Your task to perform on an android device: turn on data saver in the chrome app Image 0: 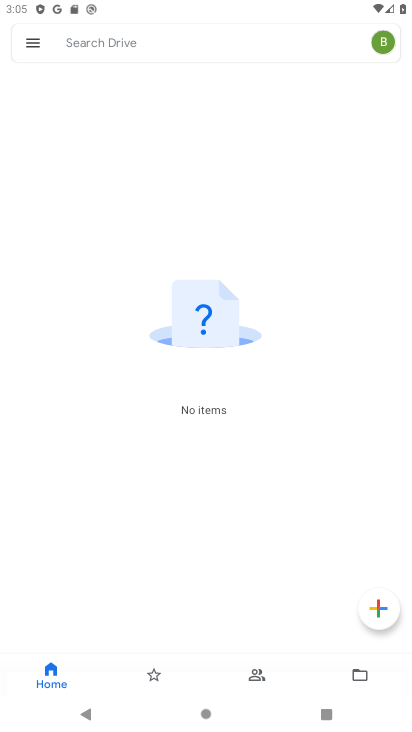
Step 0: press home button
Your task to perform on an android device: turn on data saver in the chrome app Image 1: 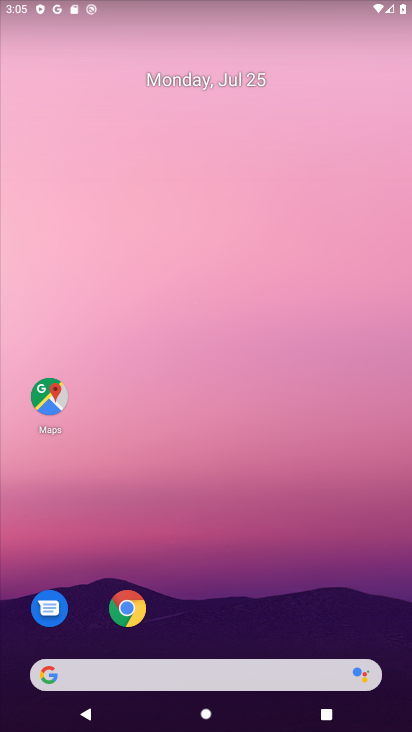
Step 1: drag from (98, 723) to (265, 75)
Your task to perform on an android device: turn on data saver in the chrome app Image 2: 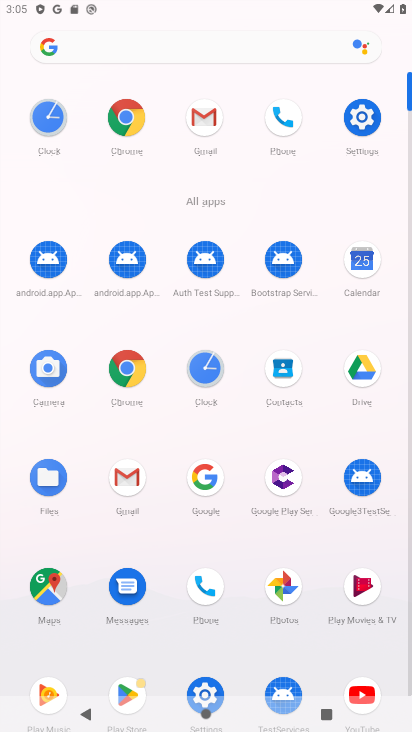
Step 2: click (122, 120)
Your task to perform on an android device: turn on data saver in the chrome app Image 3: 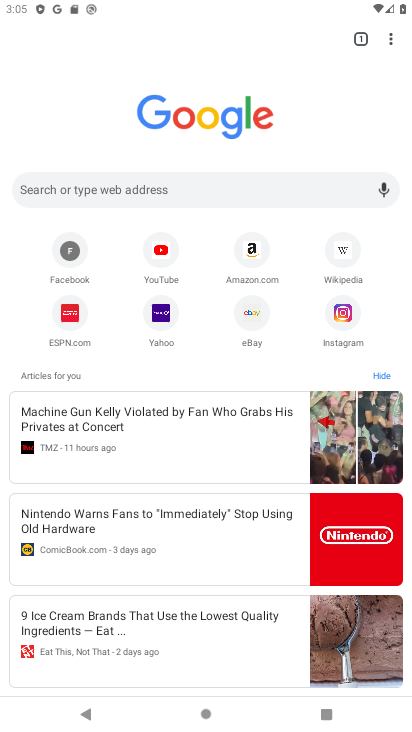
Step 3: click (394, 40)
Your task to perform on an android device: turn on data saver in the chrome app Image 4: 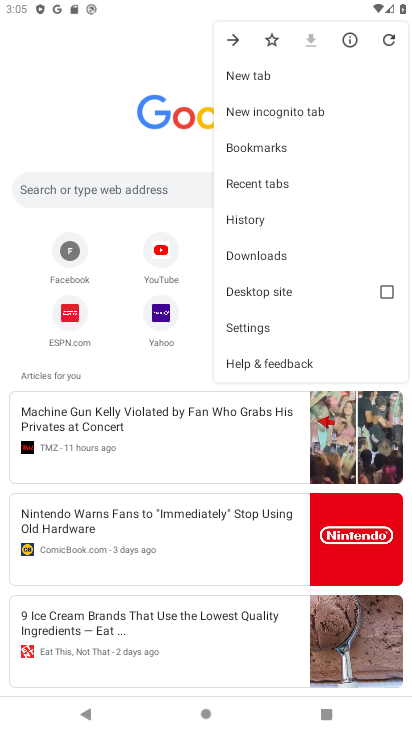
Step 4: click (269, 317)
Your task to perform on an android device: turn on data saver in the chrome app Image 5: 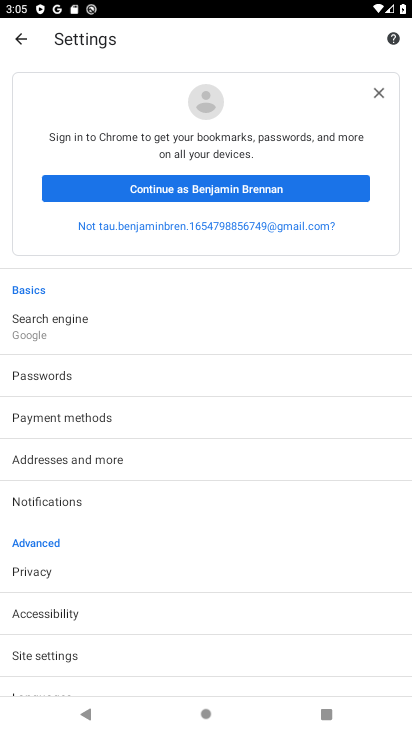
Step 5: drag from (9, 629) to (236, 177)
Your task to perform on an android device: turn on data saver in the chrome app Image 6: 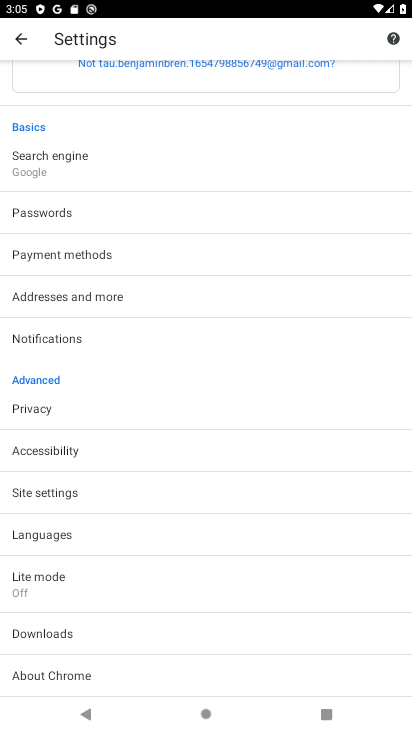
Step 6: click (55, 583)
Your task to perform on an android device: turn on data saver in the chrome app Image 7: 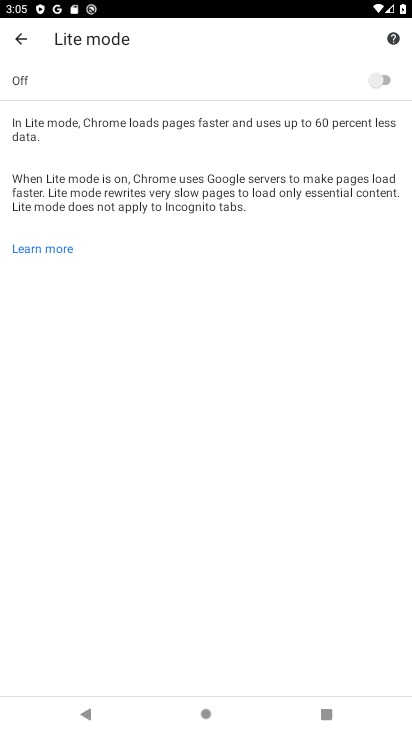
Step 7: click (372, 84)
Your task to perform on an android device: turn on data saver in the chrome app Image 8: 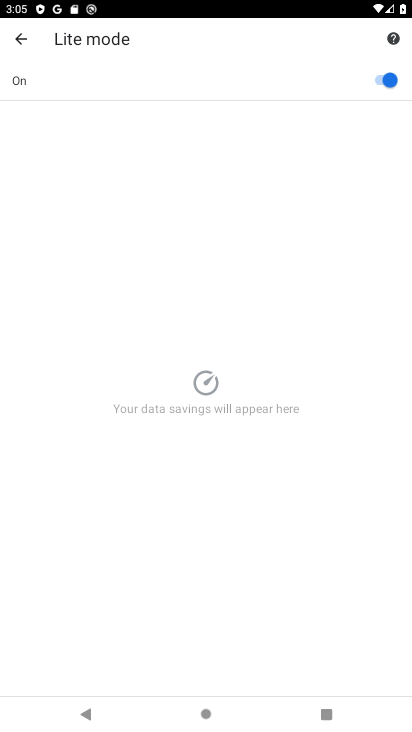
Step 8: task complete